Your task to perform on an android device: Search for flights from Zurich to Buenos aires Image 0: 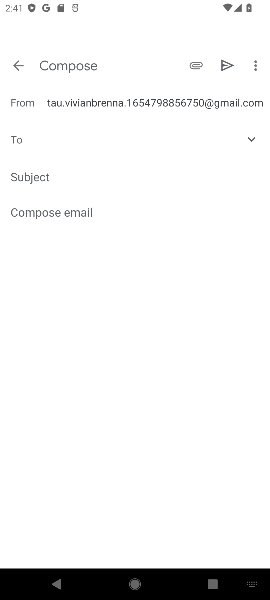
Step 0: press home button
Your task to perform on an android device: Search for flights from Zurich to Buenos aires Image 1: 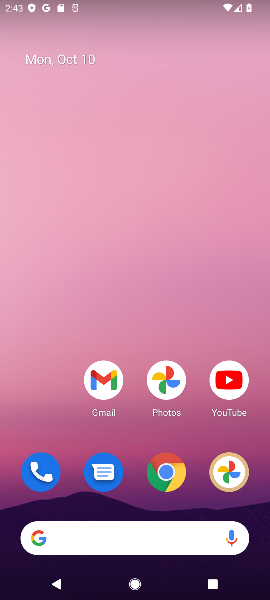
Step 1: drag from (91, 376) to (72, 127)
Your task to perform on an android device: Search for flights from Zurich to Buenos aires Image 2: 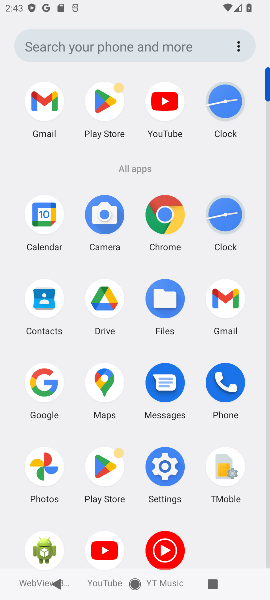
Step 2: click (45, 382)
Your task to perform on an android device: Search for flights from Zurich to Buenos aires Image 3: 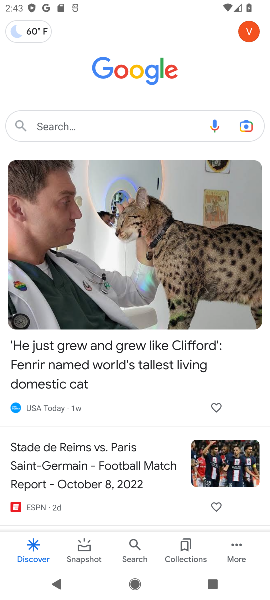
Step 3: click (128, 122)
Your task to perform on an android device: Search for flights from Zurich to Buenos aires Image 4: 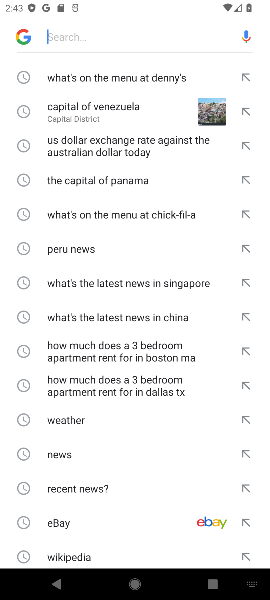
Step 4: type "flights from Zurich to Buenos aires"
Your task to perform on an android device: Search for flights from Zurich to Buenos aires Image 5: 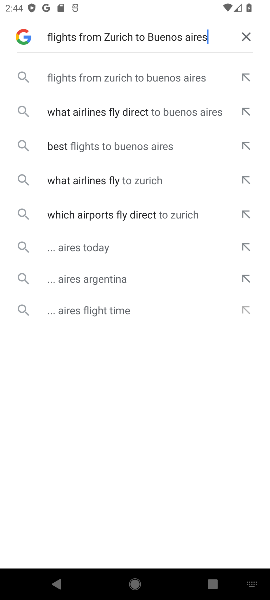
Step 5: click (87, 78)
Your task to perform on an android device: Search for flights from Zurich to Buenos aires Image 6: 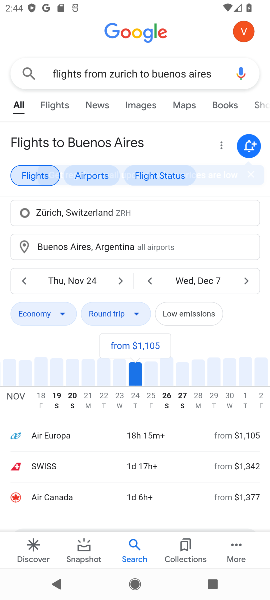
Step 6: task complete